Your task to perform on an android device: change alarm snooze length Image 0: 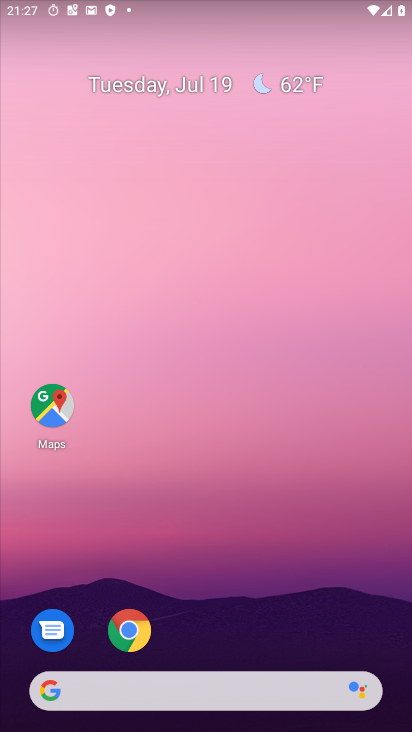
Step 0: drag from (73, 623) to (371, 28)
Your task to perform on an android device: change alarm snooze length Image 1: 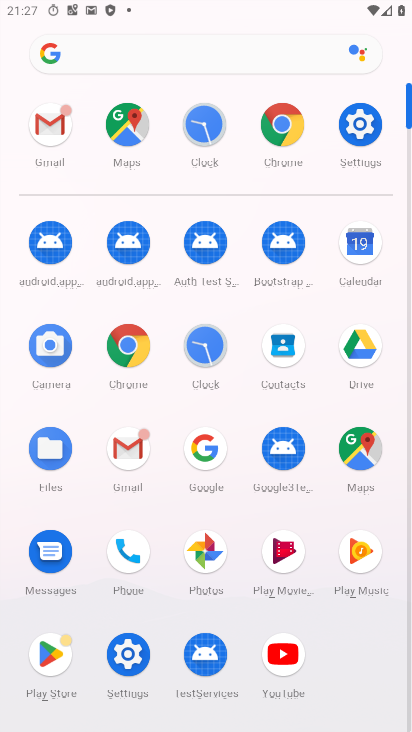
Step 1: click (200, 354)
Your task to perform on an android device: change alarm snooze length Image 2: 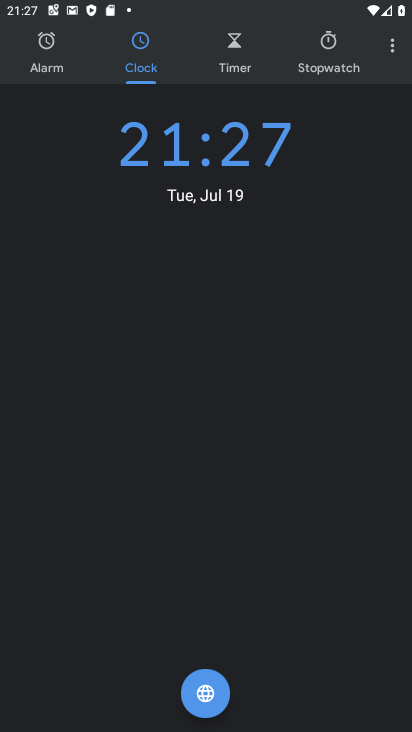
Step 2: click (47, 57)
Your task to perform on an android device: change alarm snooze length Image 3: 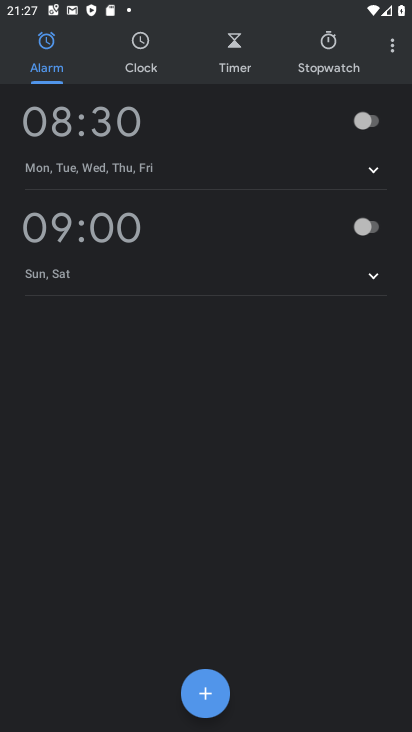
Step 3: click (389, 55)
Your task to perform on an android device: change alarm snooze length Image 4: 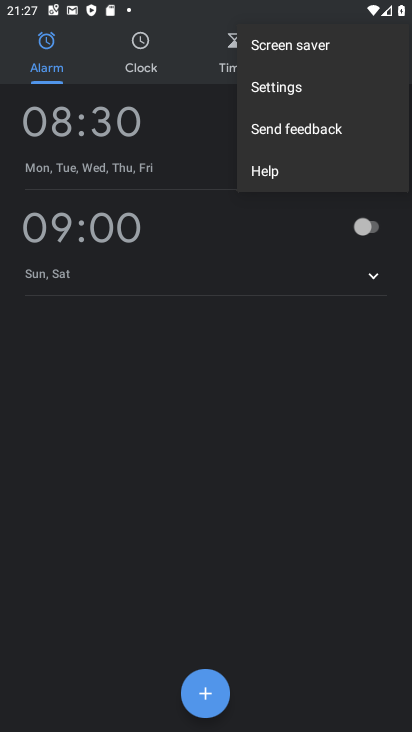
Step 4: click (281, 83)
Your task to perform on an android device: change alarm snooze length Image 5: 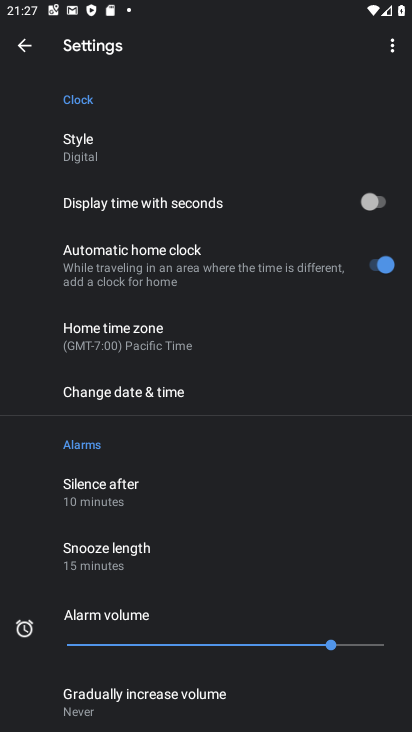
Step 5: click (104, 484)
Your task to perform on an android device: change alarm snooze length Image 6: 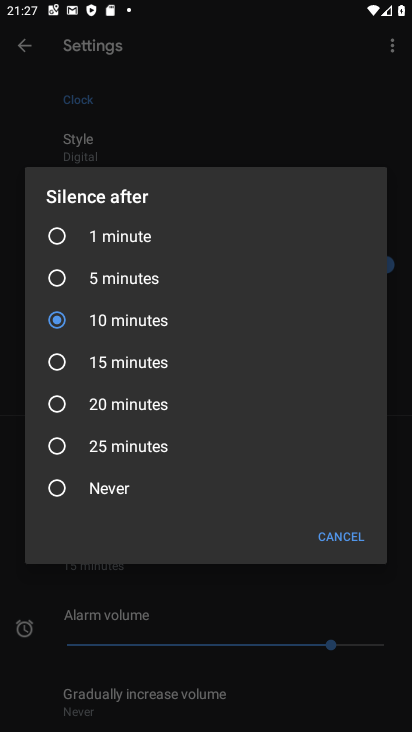
Step 6: click (270, 596)
Your task to perform on an android device: change alarm snooze length Image 7: 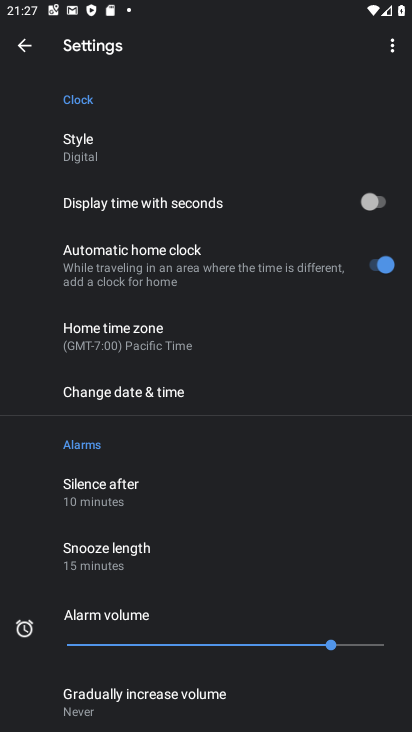
Step 7: click (105, 576)
Your task to perform on an android device: change alarm snooze length Image 8: 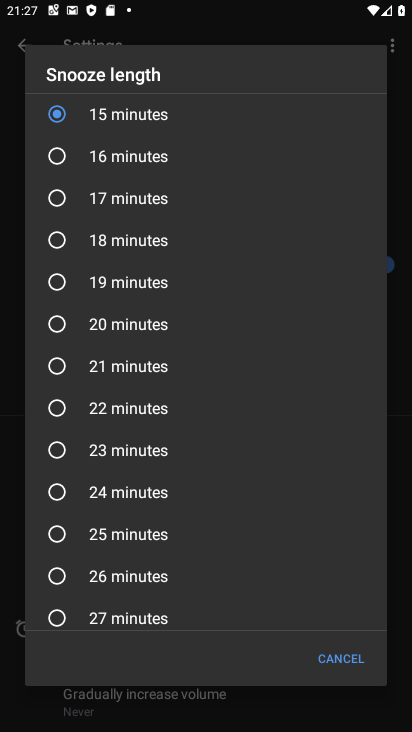
Step 8: click (56, 189)
Your task to perform on an android device: change alarm snooze length Image 9: 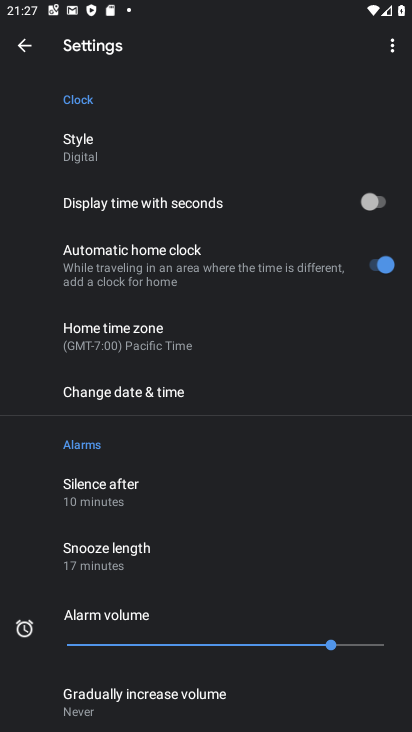
Step 9: task complete